Your task to perform on an android device: Open Reddit.com Image 0: 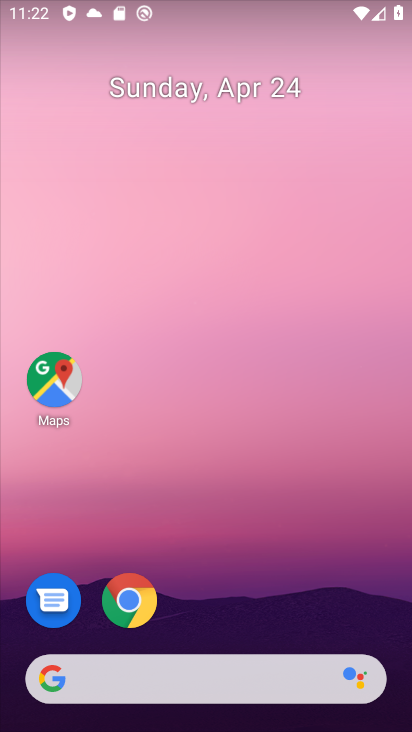
Step 0: click (212, 675)
Your task to perform on an android device: Open Reddit.com Image 1: 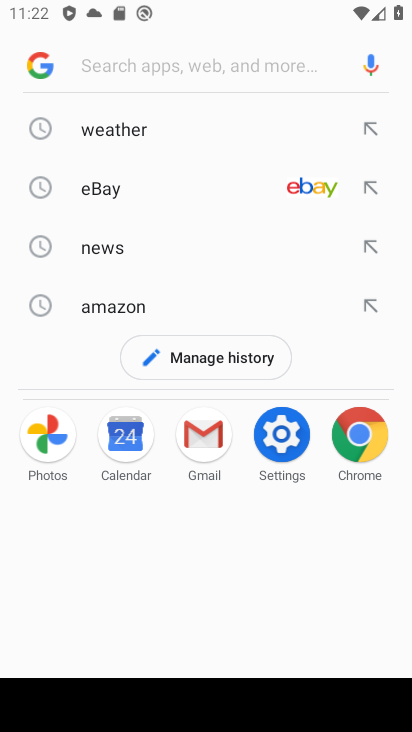
Step 1: type "Reddit.com"
Your task to perform on an android device: Open Reddit.com Image 2: 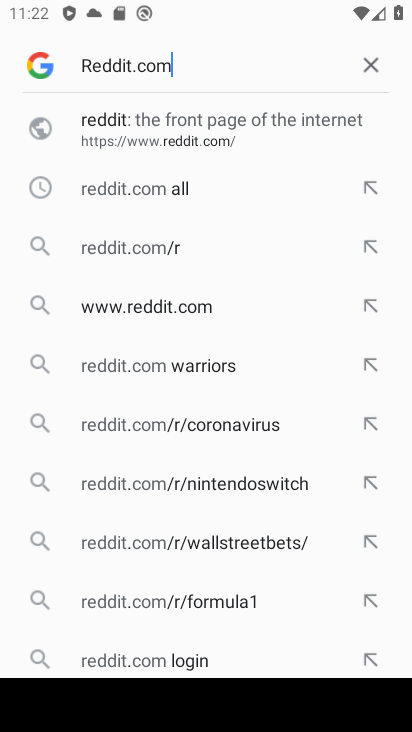
Step 2: click (192, 122)
Your task to perform on an android device: Open Reddit.com Image 3: 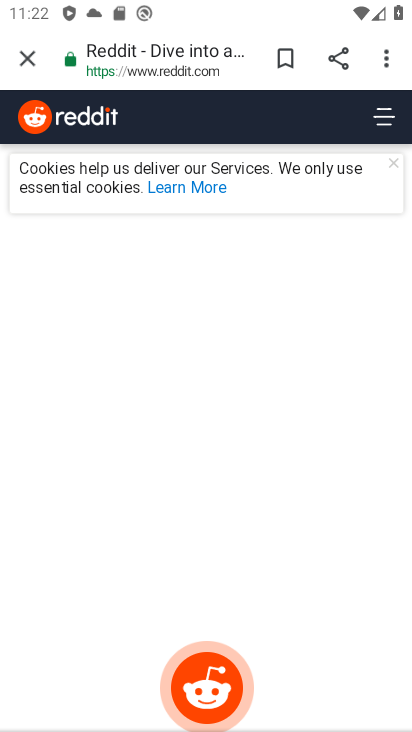
Step 3: task complete